Your task to perform on an android device: empty trash in the gmail app Image 0: 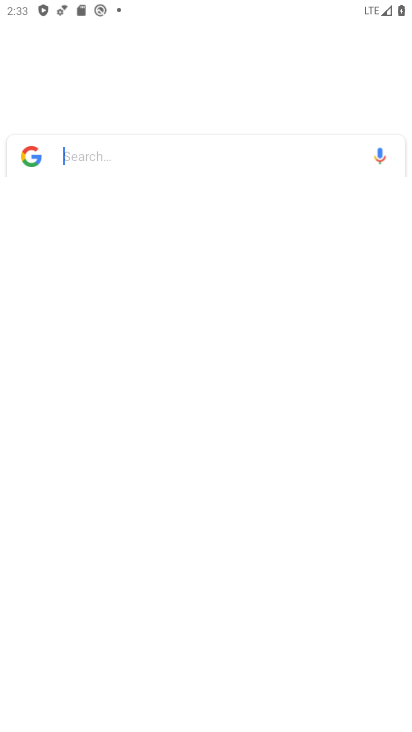
Step 0: click (275, 537)
Your task to perform on an android device: empty trash in the gmail app Image 1: 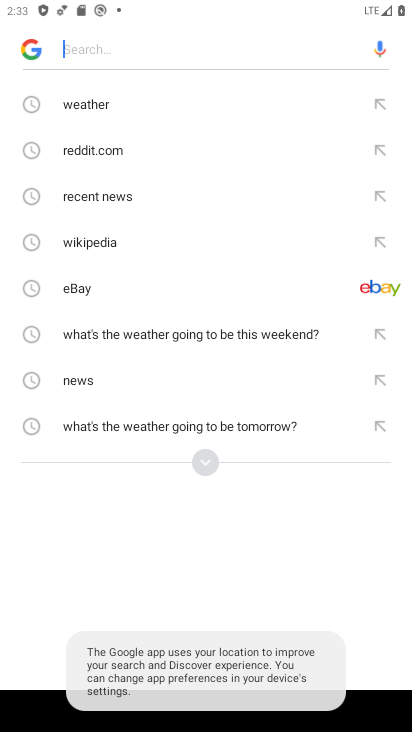
Step 1: press home button
Your task to perform on an android device: empty trash in the gmail app Image 2: 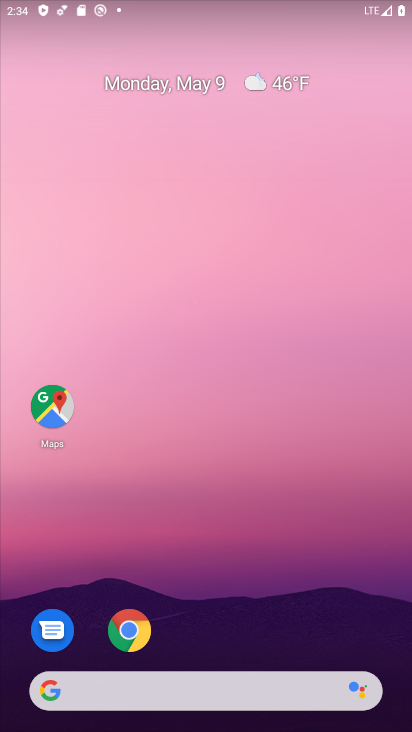
Step 2: drag from (400, 610) to (399, 274)
Your task to perform on an android device: empty trash in the gmail app Image 3: 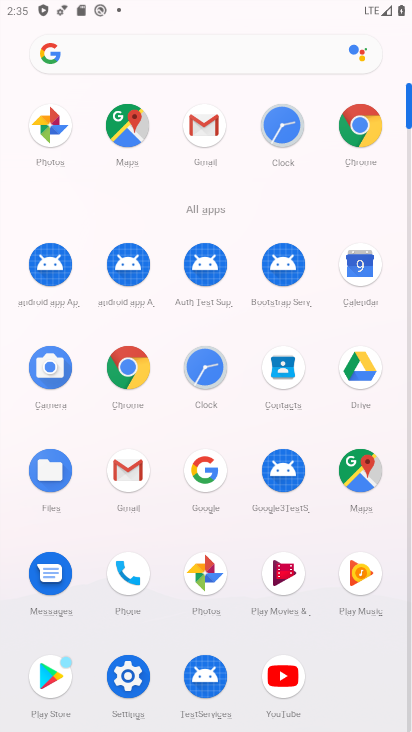
Step 3: click (215, 126)
Your task to perform on an android device: empty trash in the gmail app Image 4: 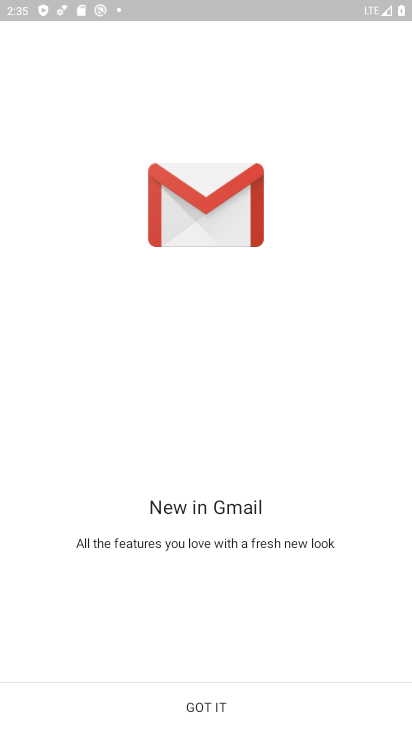
Step 4: click (245, 710)
Your task to perform on an android device: empty trash in the gmail app Image 5: 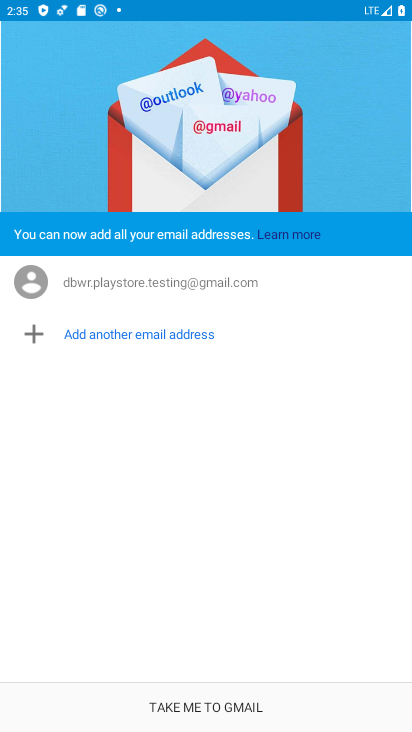
Step 5: click (245, 710)
Your task to perform on an android device: empty trash in the gmail app Image 6: 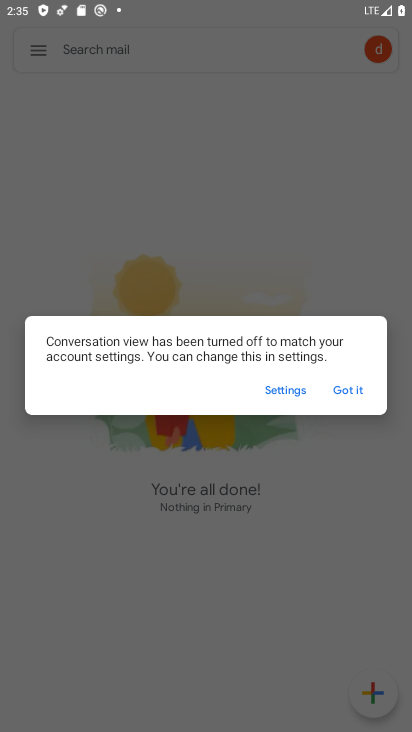
Step 6: click (369, 387)
Your task to perform on an android device: empty trash in the gmail app Image 7: 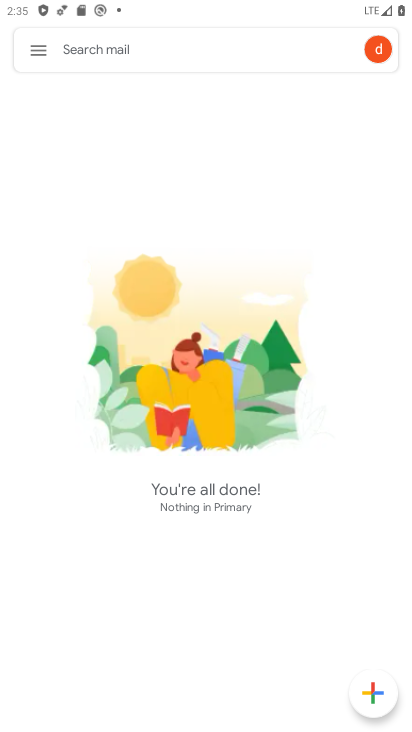
Step 7: click (38, 51)
Your task to perform on an android device: empty trash in the gmail app Image 8: 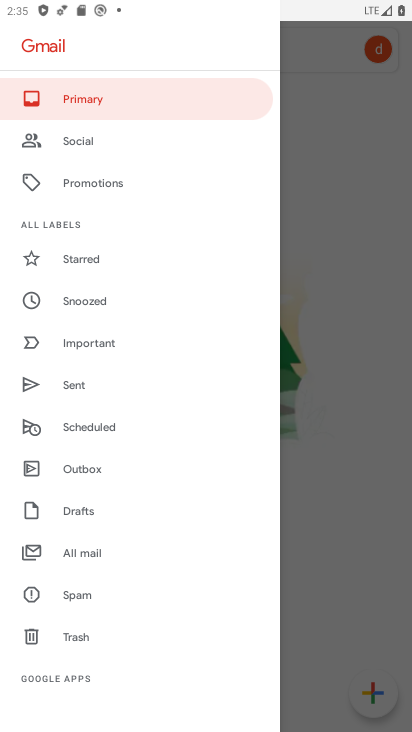
Step 8: click (41, 650)
Your task to perform on an android device: empty trash in the gmail app Image 9: 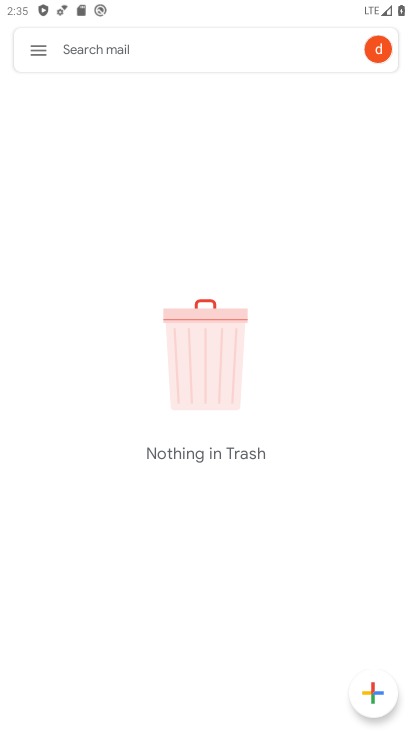
Step 9: task complete